Your task to perform on an android device: Is it going to rain today? Image 0: 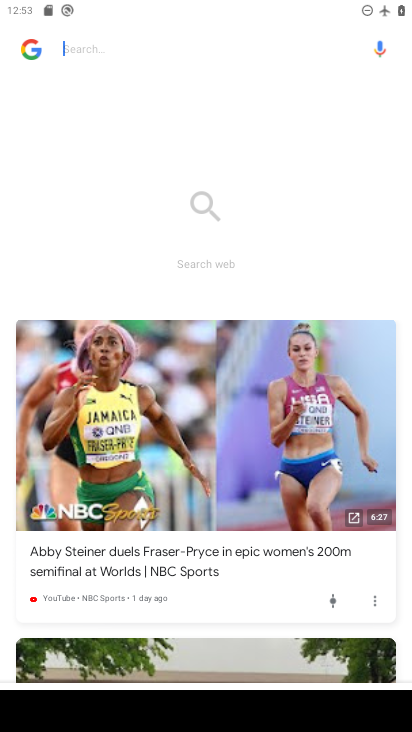
Step 0: task complete